Your task to perform on an android device: refresh tabs in the chrome app Image 0: 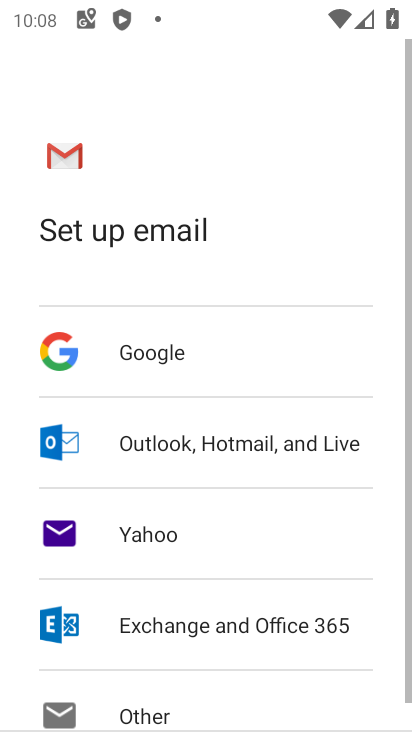
Step 0: press home button
Your task to perform on an android device: refresh tabs in the chrome app Image 1: 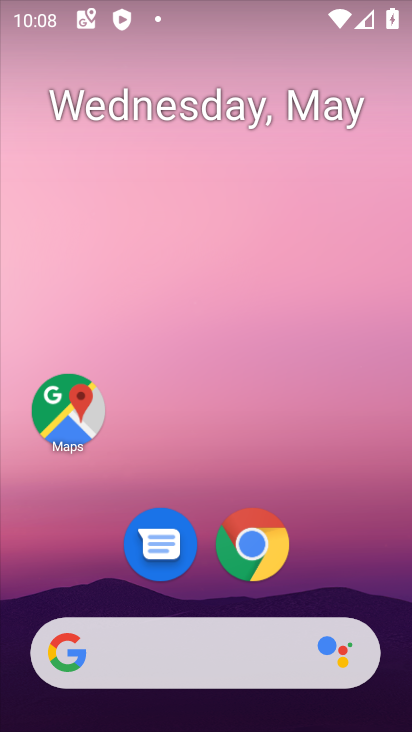
Step 1: drag from (144, 677) to (226, 185)
Your task to perform on an android device: refresh tabs in the chrome app Image 2: 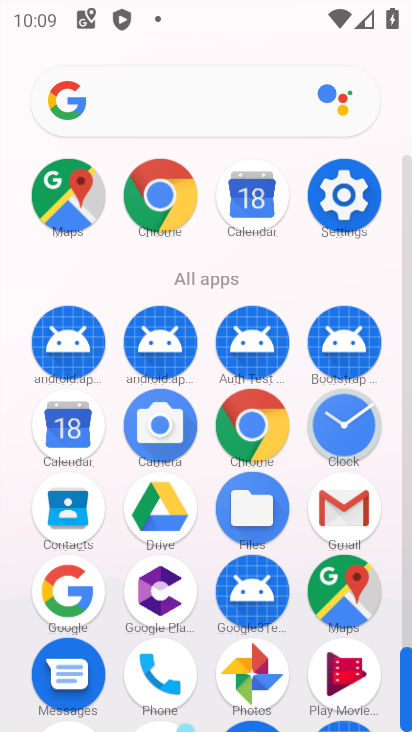
Step 2: click (265, 429)
Your task to perform on an android device: refresh tabs in the chrome app Image 3: 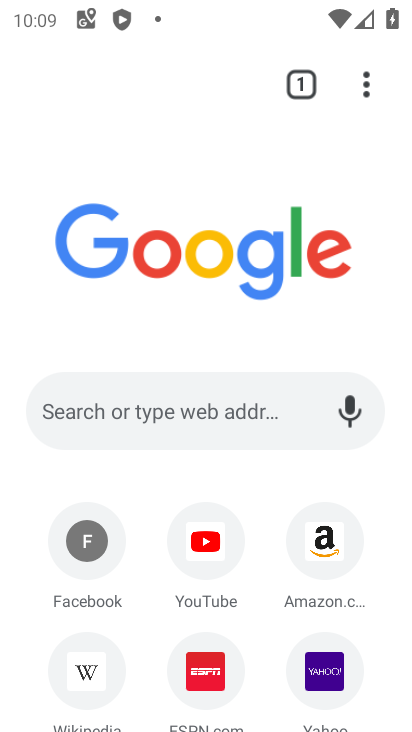
Step 3: click (362, 84)
Your task to perform on an android device: refresh tabs in the chrome app Image 4: 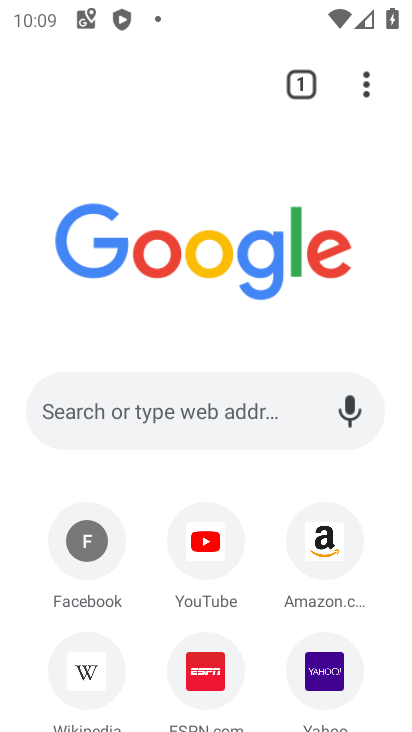
Step 4: task complete